Your task to perform on an android device: add a label to a message in the gmail app Image 0: 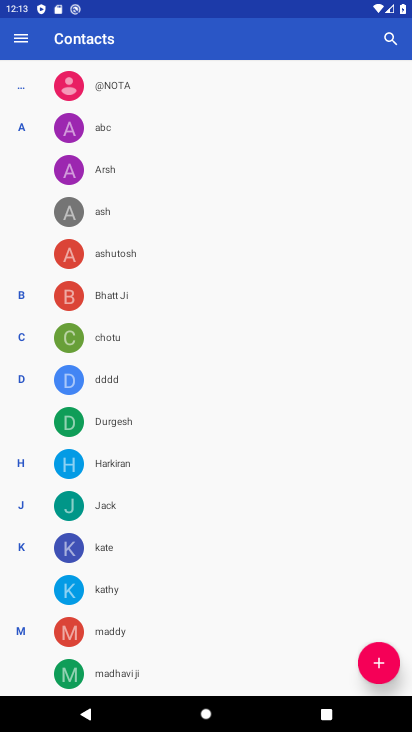
Step 0: press back button
Your task to perform on an android device: add a label to a message in the gmail app Image 1: 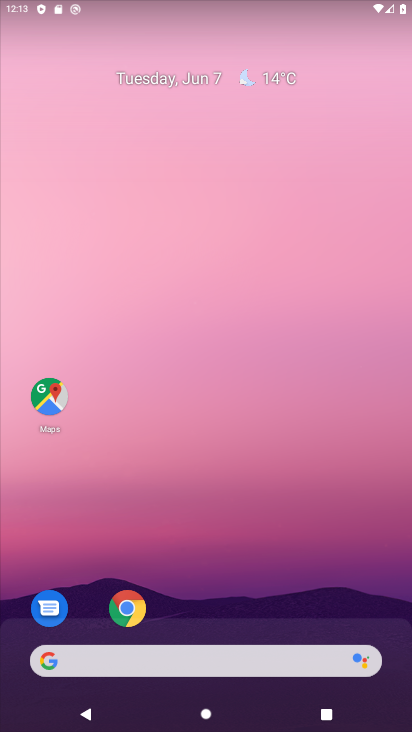
Step 1: drag from (259, 599) to (177, 11)
Your task to perform on an android device: add a label to a message in the gmail app Image 2: 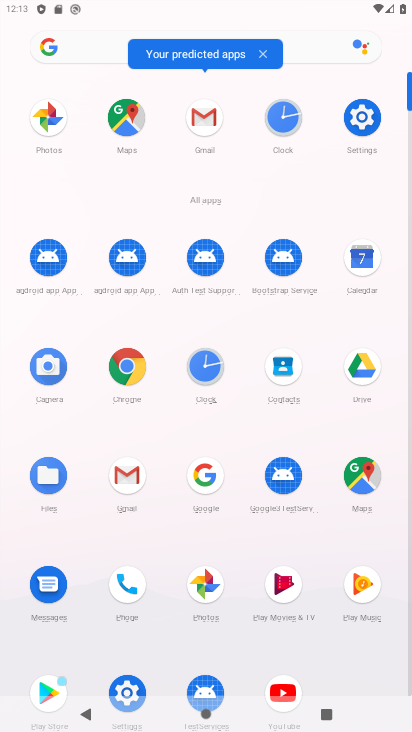
Step 2: click (128, 467)
Your task to perform on an android device: add a label to a message in the gmail app Image 3: 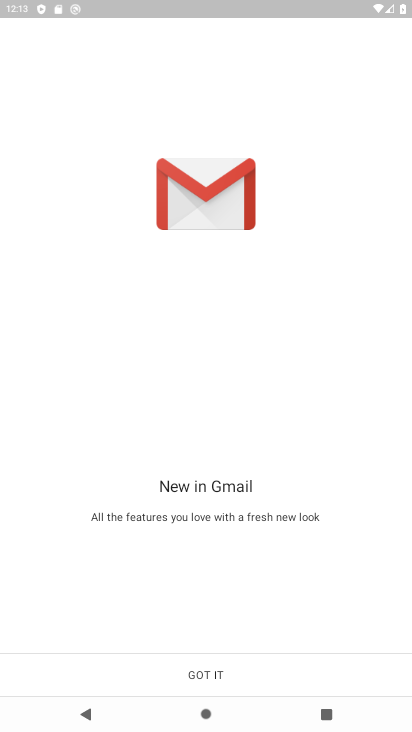
Step 3: click (241, 685)
Your task to perform on an android device: add a label to a message in the gmail app Image 4: 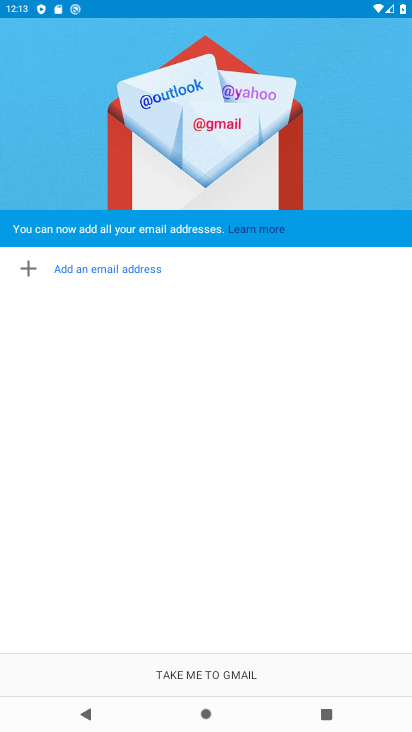
Step 4: click (241, 679)
Your task to perform on an android device: add a label to a message in the gmail app Image 5: 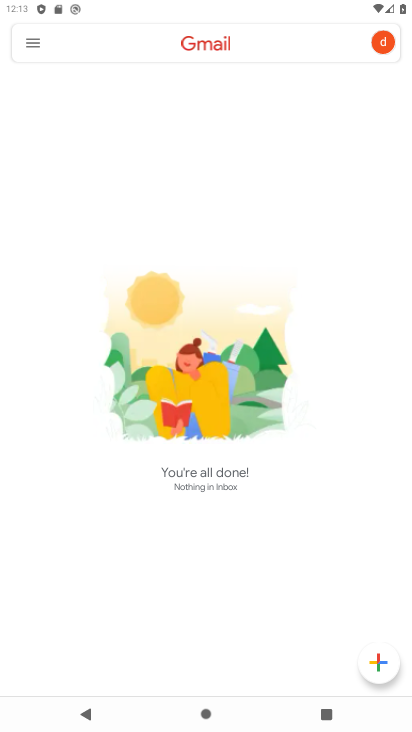
Step 5: click (27, 37)
Your task to perform on an android device: add a label to a message in the gmail app Image 6: 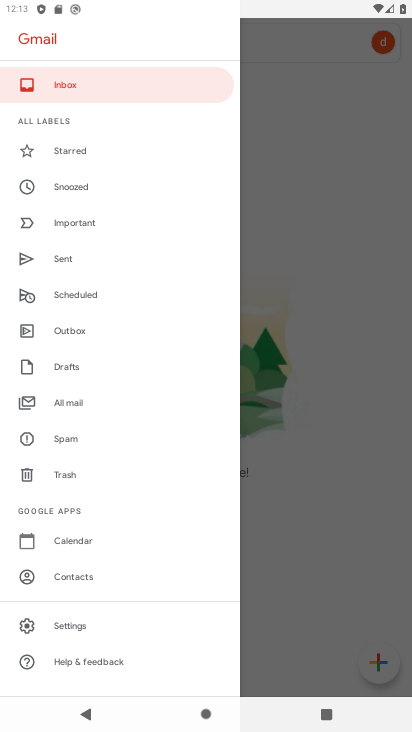
Step 6: click (89, 144)
Your task to perform on an android device: add a label to a message in the gmail app Image 7: 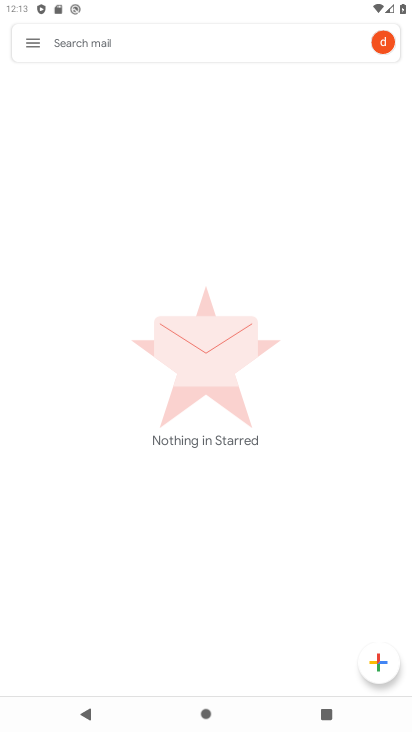
Step 7: click (34, 43)
Your task to perform on an android device: add a label to a message in the gmail app Image 8: 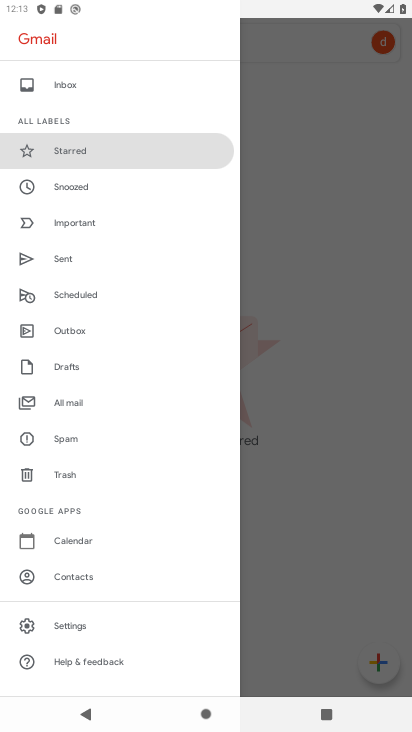
Step 8: click (83, 393)
Your task to perform on an android device: add a label to a message in the gmail app Image 9: 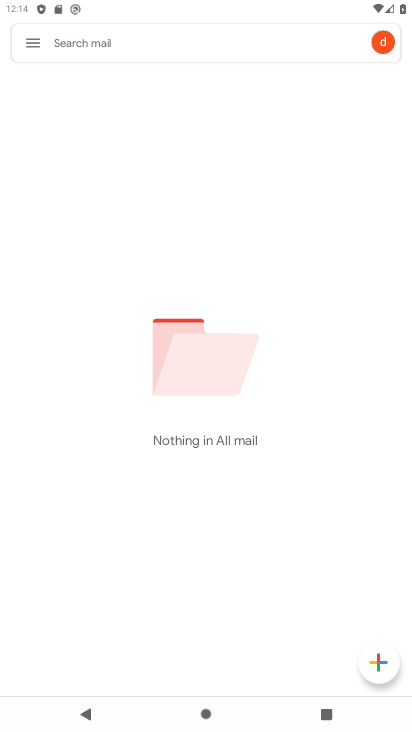
Step 9: task complete